Your task to perform on an android device: Go to Yahoo.com Image 0: 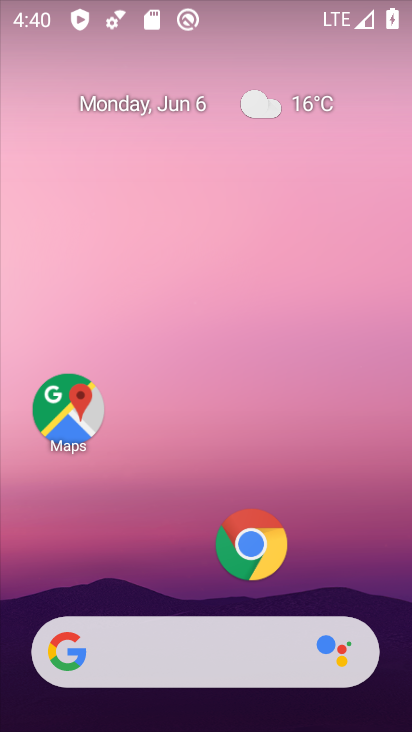
Step 0: click (252, 537)
Your task to perform on an android device: Go to Yahoo.com Image 1: 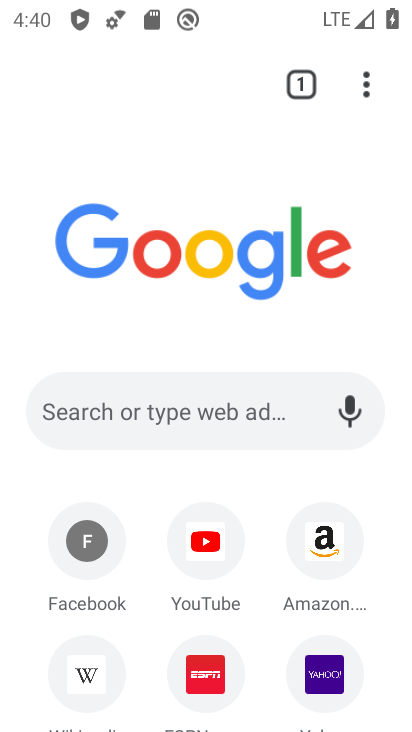
Step 1: click (317, 663)
Your task to perform on an android device: Go to Yahoo.com Image 2: 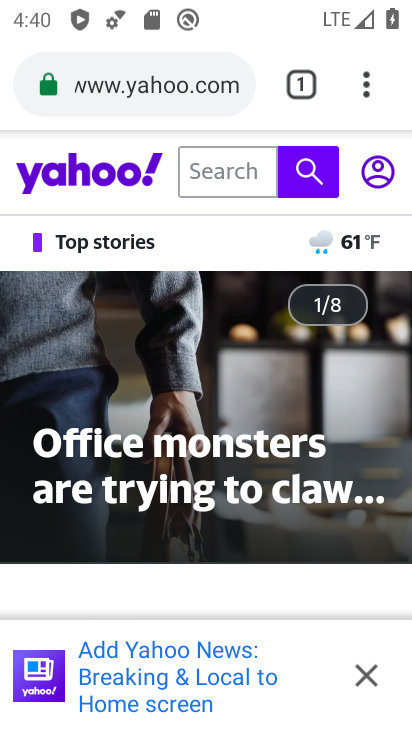
Step 2: click (368, 669)
Your task to perform on an android device: Go to Yahoo.com Image 3: 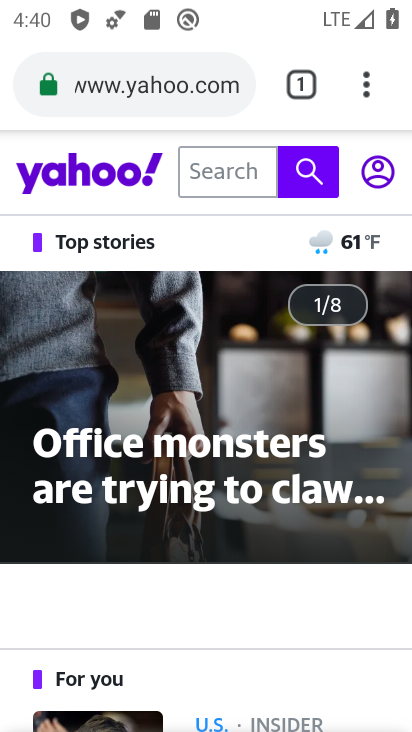
Step 3: task complete